Your task to perform on an android device: Open internet settings Image 0: 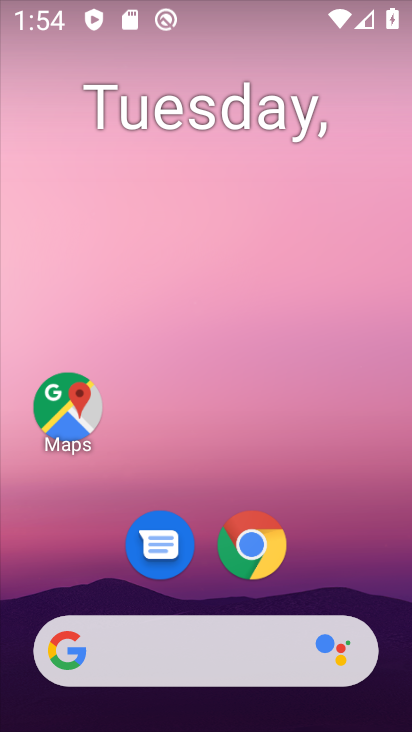
Step 0: drag from (333, 500) to (272, 44)
Your task to perform on an android device: Open internet settings Image 1: 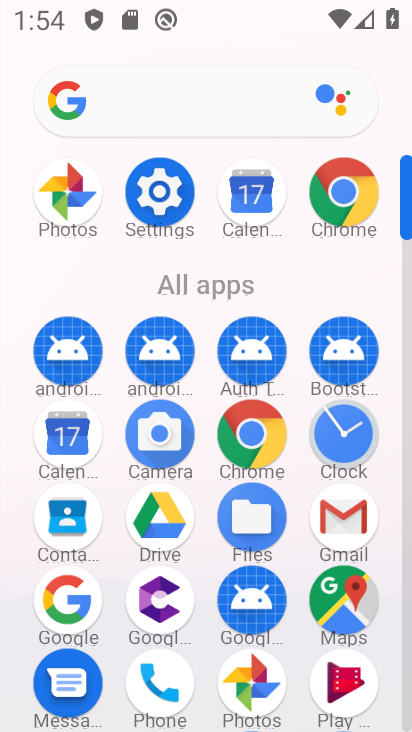
Step 1: click (161, 191)
Your task to perform on an android device: Open internet settings Image 2: 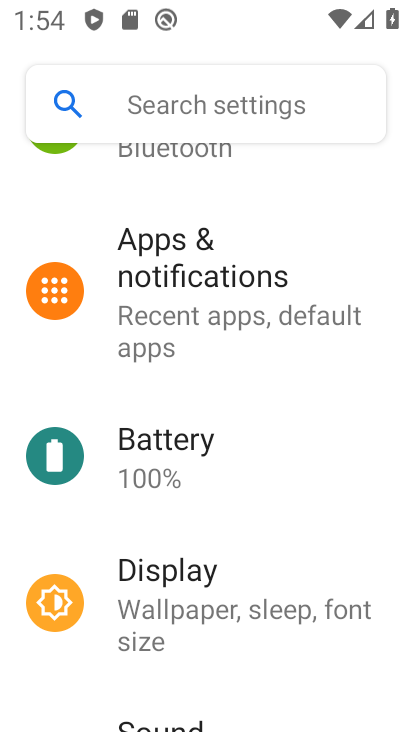
Step 2: drag from (236, 200) to (248, 568)
Your task to perform on an android device: Open internet settings Image 3: 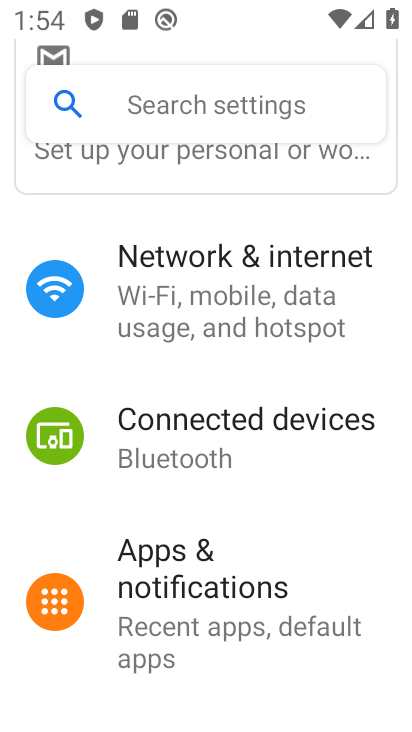
Step 3: drag from (259, 364) to (259, 493)
Your task to perform on an android device: Open internet settings Image 4: 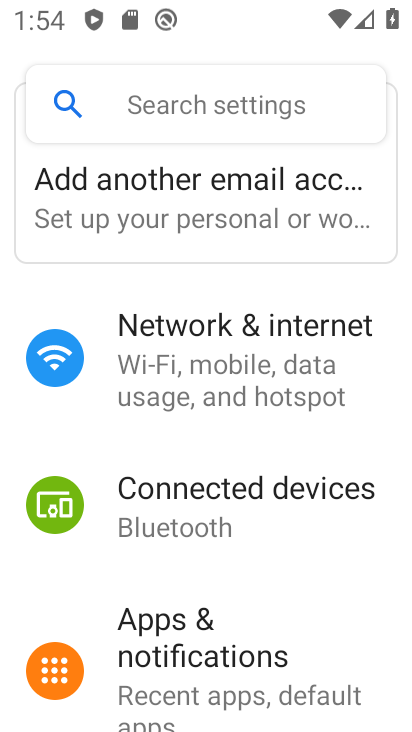
Step 4: click (229, 346)
Your task to perform on an android device: Open internet settings Image 5: 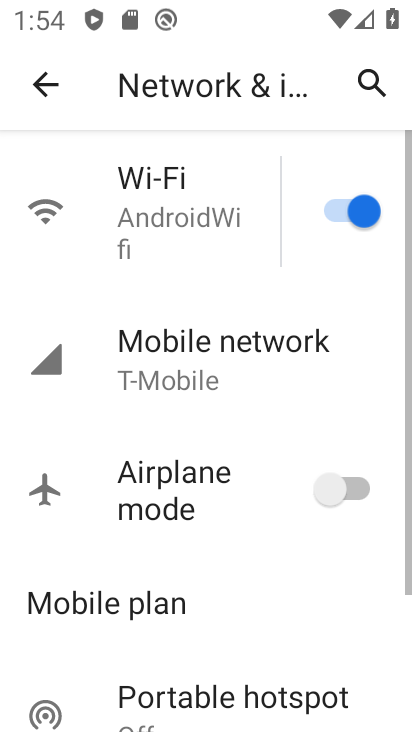
Step 5: drag from (214, 563) to (166, 226)
Your task to perform on an android device: Open internet settings Image 6: 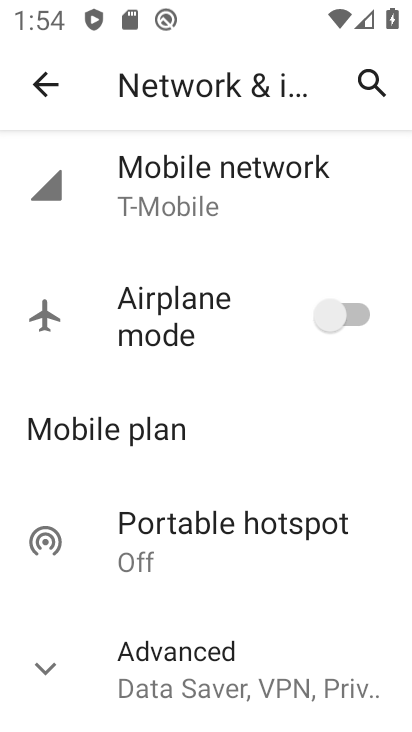
Step 6: drag from (186, 578) to (215, 255)
Your task to perform on an android device: Open internet settings Image 7: 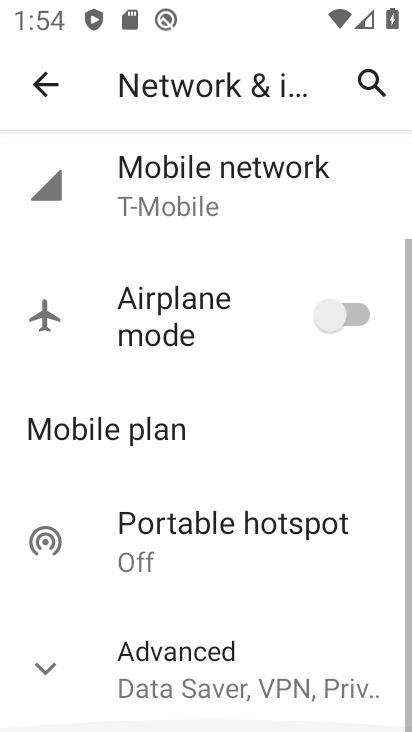
Step 7: click (36, 666)
Your task to perform on an android device: Open internet settings Image 8: 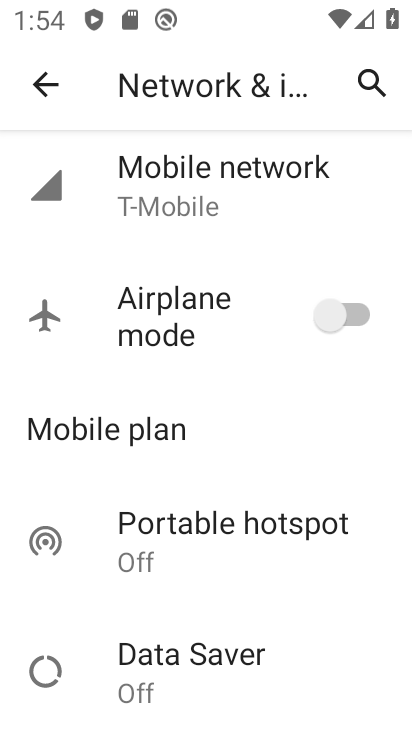
Step 8: task complete